Your task to perform on an android device: move a message to another label in the gmail app Image 0: 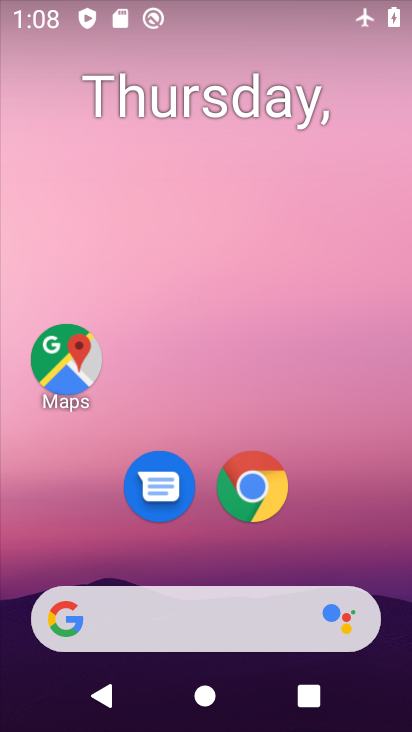
Step 0: click (293, 94)
Your task to perform on an android device: move a message to another label in the gmail app Image 1: 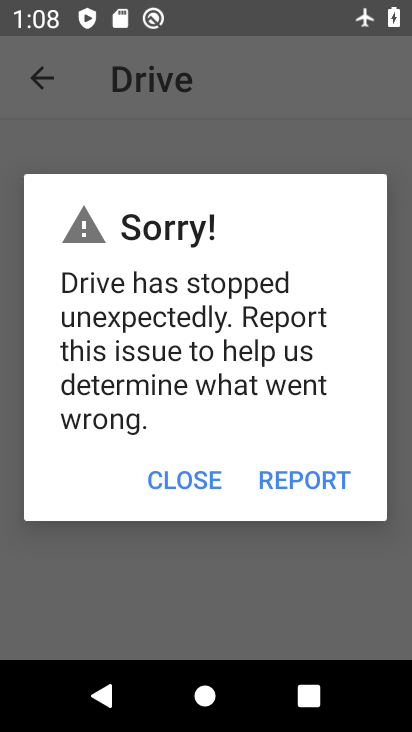
Step 1: click (400, 615)
Your task to perform on an android device: move a message to another label in the gmail app Image 2: 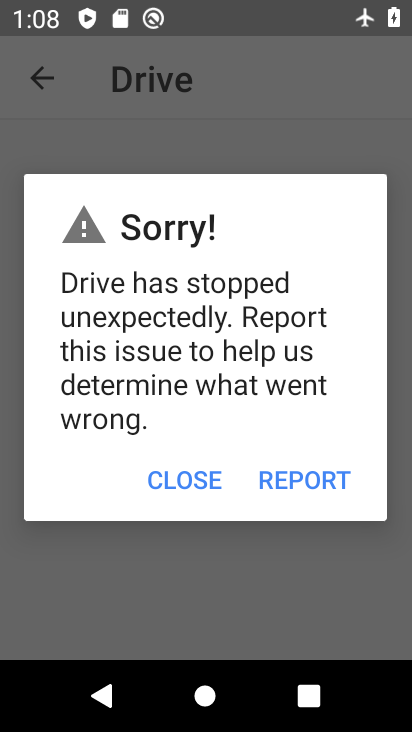
Step 2: press home button
Your task to perform on an android device: move a message to another label in the gmail app Image 3: 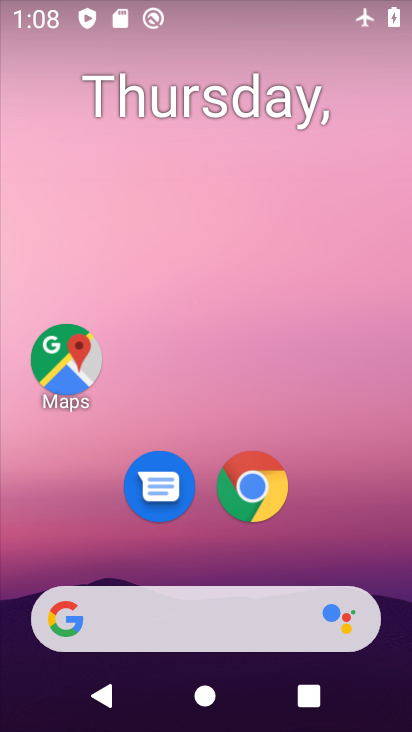
Step 3: drag from (393, 552) to (265, 106)
Your task to perform on an android device: move a message to another label in the gmail app Image 4: 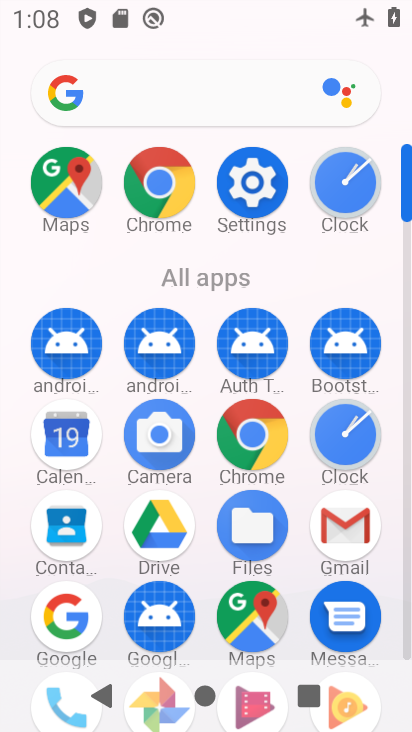
Step 4: click (354, 546)
Your task to perform on an android device: move a message to another label in the gmail app Image 5: 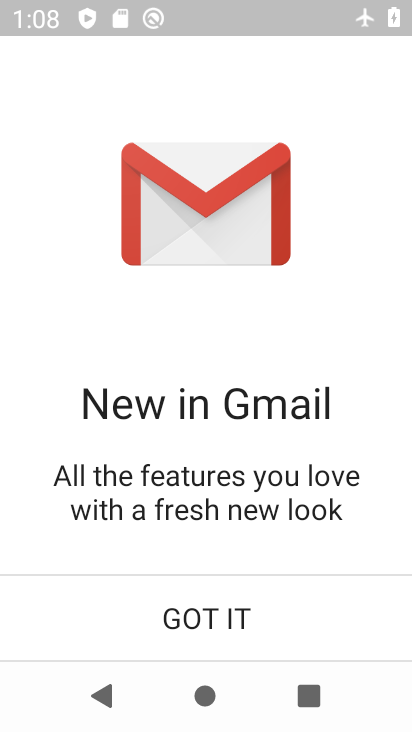
Step 5: click (222, 618)
Your task to perform on an android device: move a message to another label in the gmail app Image 6: 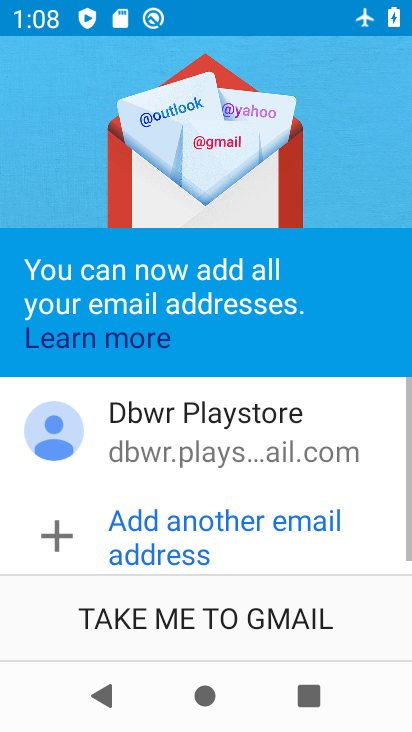
Step 6: click (222, 618)
Your task to perform on an android device: move a message to another label in the gmail app Image 7: 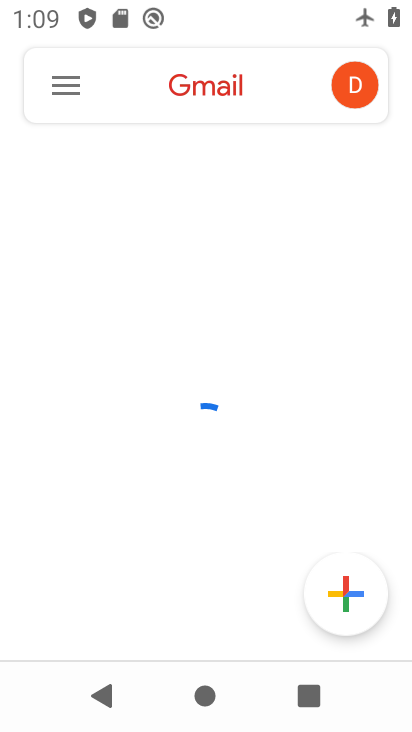
Step 7: click (67, 97)
Your task to perform on an android device: move a message to another label in the gmail app Image 8: 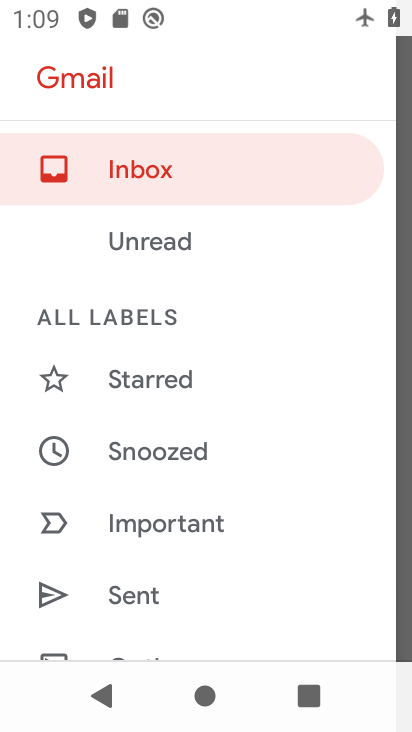
Step 8: click (196, 173)
Your task to perform on an android device: move a message to another label in the gmail app Image 9: 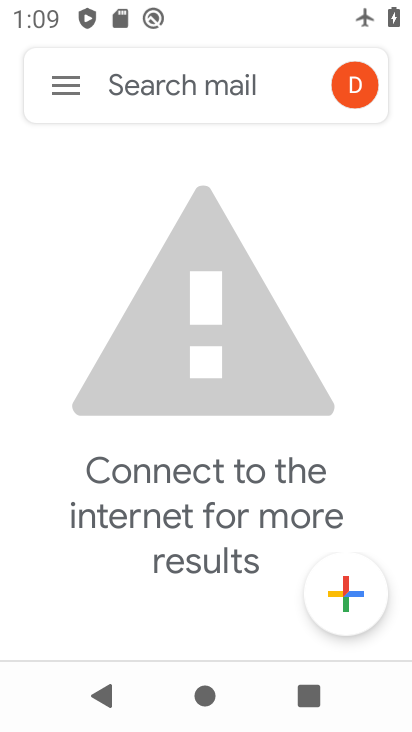
Step 9: task complete